Your task to perform on an android device: open app "Skype" Image 0: 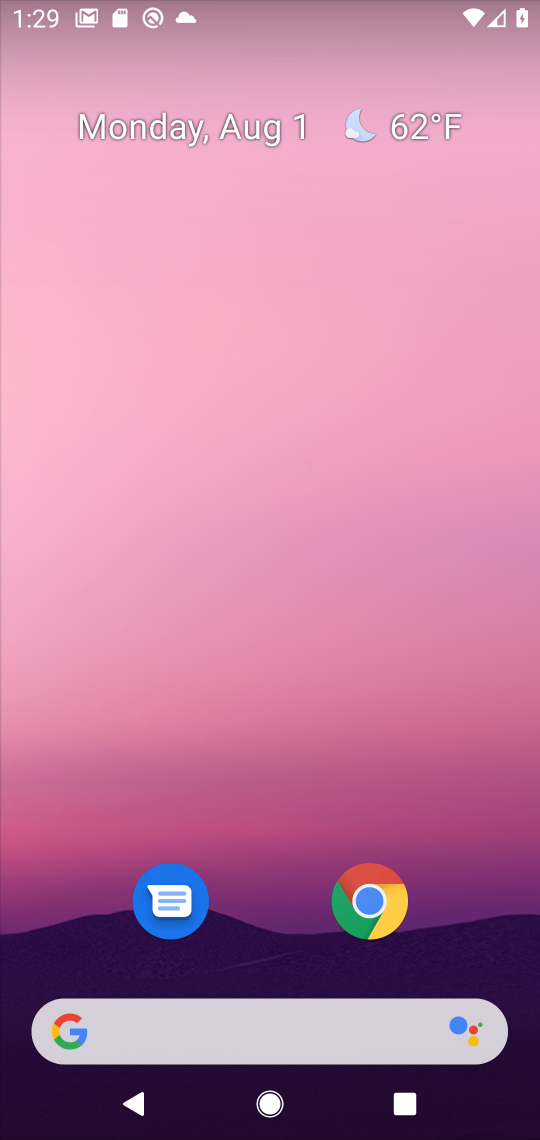
Step 0: press home button
Your task to perform on an android device: open app "Skype" Image 1: 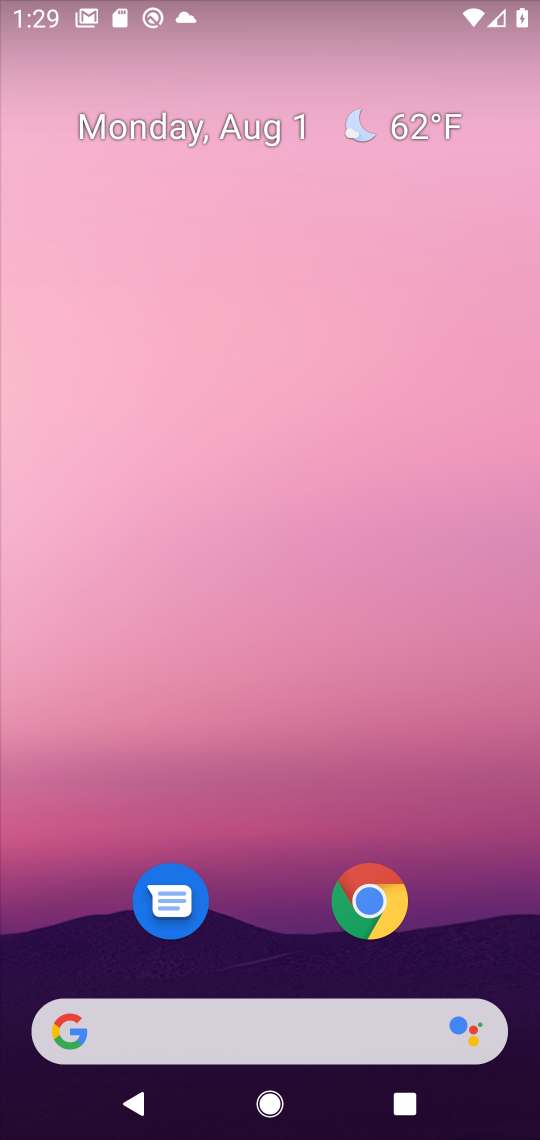
Step 1: drag from (262, 1006) to (419, 175)
Your task to perform on an android device: open app "Skype" Image 2: 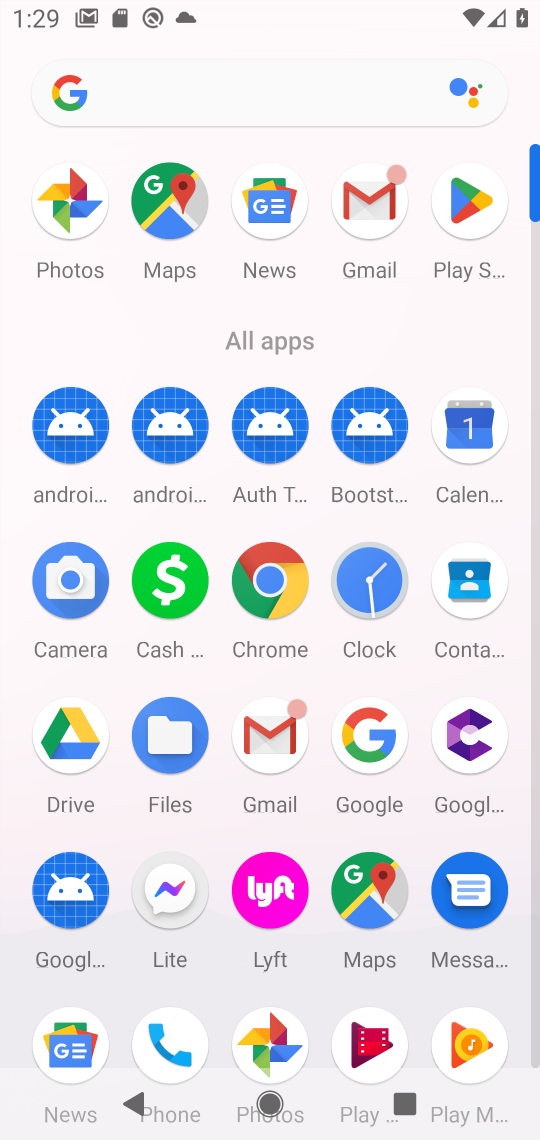
Step 2: click (473, 218)
Your task to perform on an android device: open app "Skype" Image 3: 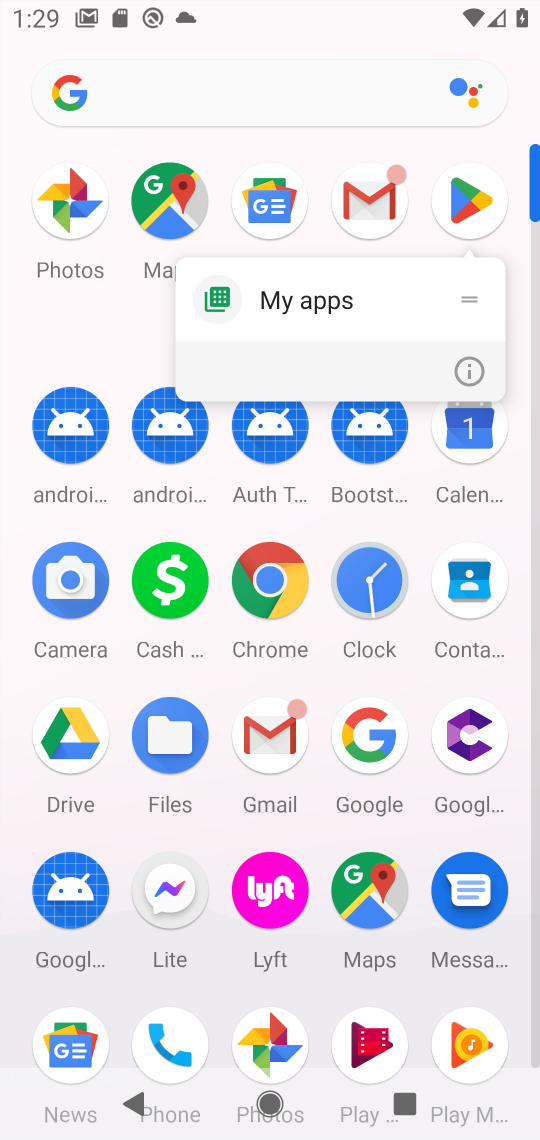
Step 3: click (479, 211)
Your task to perform on an android device: open app "Skype" Image 4: 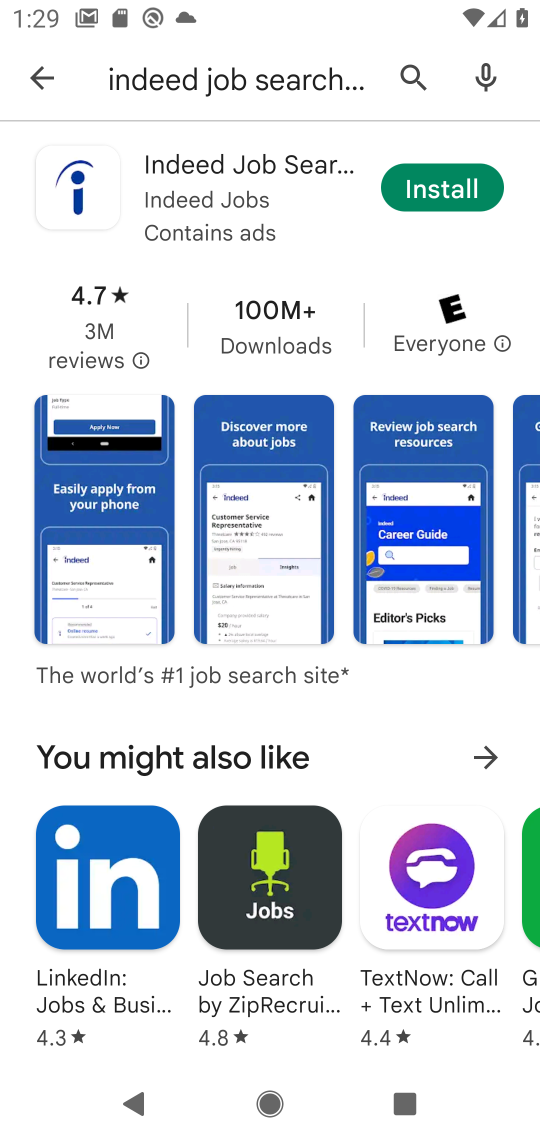
Step 4: click (418, 94)
Your task to perform on an android device: open app "Skype" Image 5: 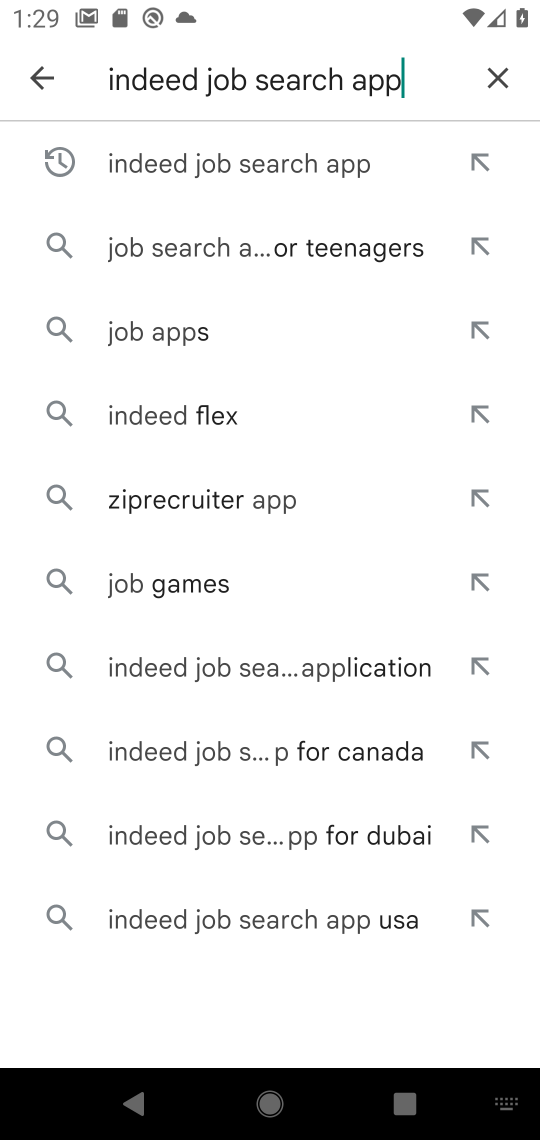
Step 5: click (494, 86)
Your task to perform on an android device: open app "Skype" Image 6: 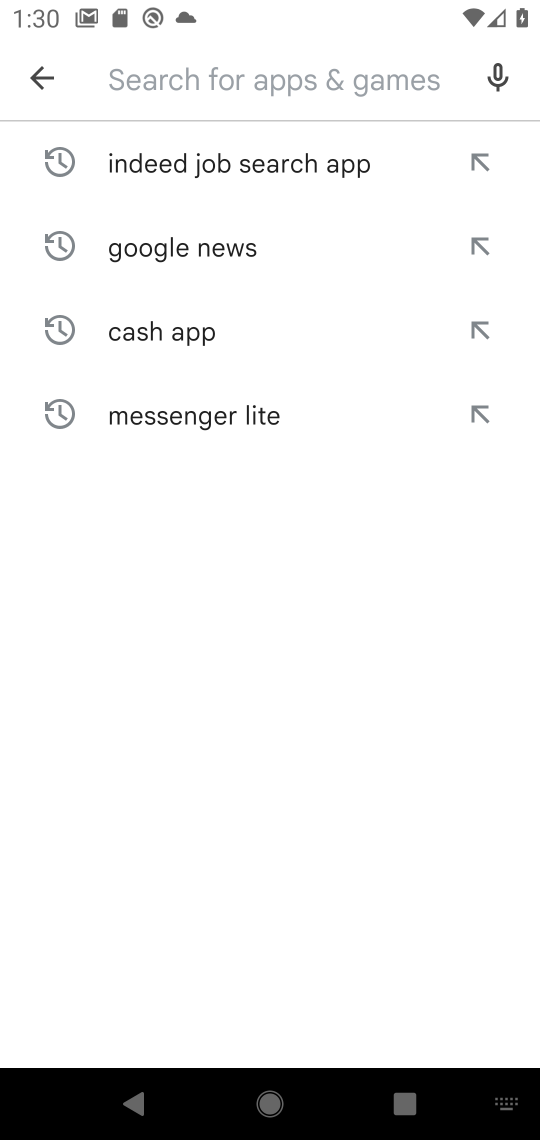
Step 6: type "Skype"
Your task to perform on an android device: open app "Skype" Image 7: 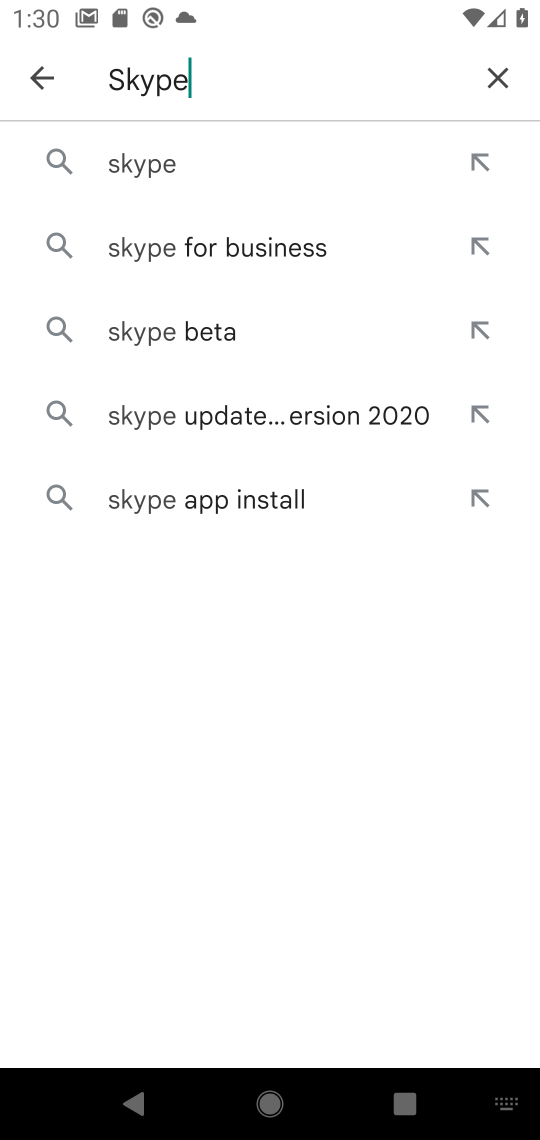
Step 7: click (180, 162)
Your task to perform on an android device: open app "Skype" Image 8: 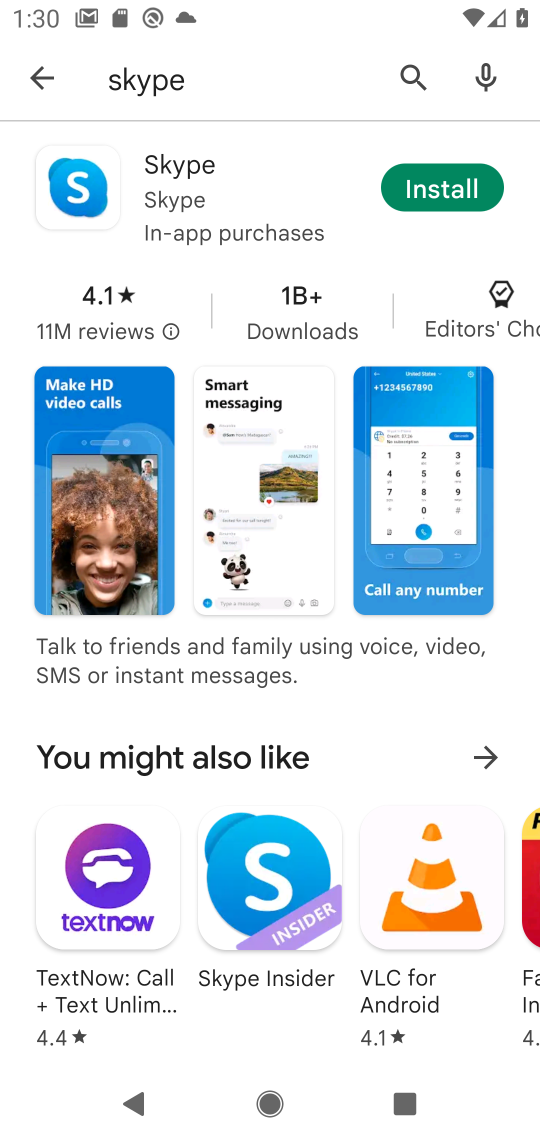
Step 8: task complete